Your task to perform on an android device: Open wifi settings Image 0: 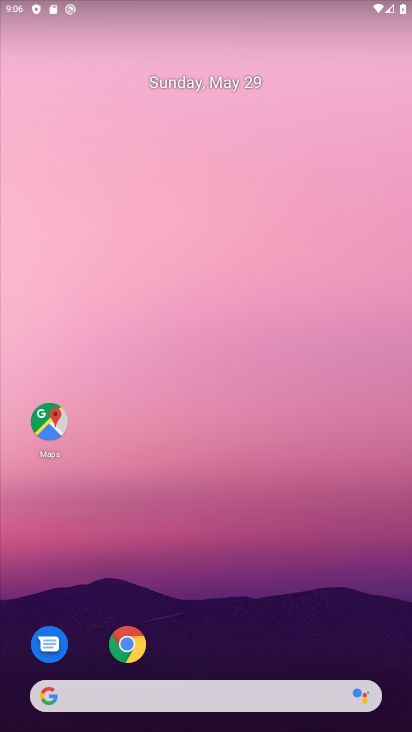
Step 0: drag from (187, 669) to (282, 156)
Your task to perform on an android device: Open wifi settings Image 1: 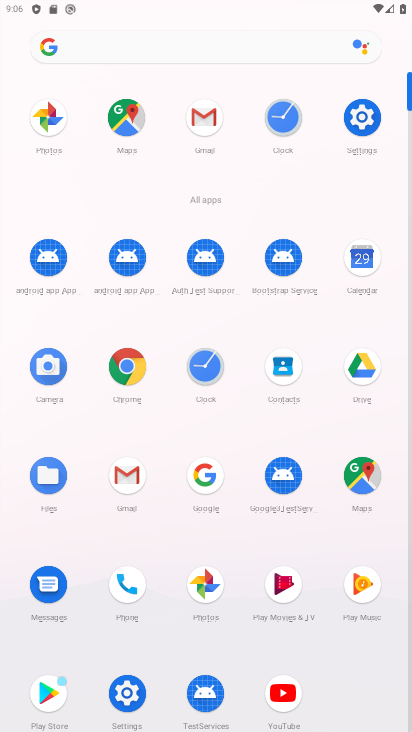
Step 1: drag from (166, 546) to (198, 419)
Your task to perform on an android device: Open wifi settings Image 2: 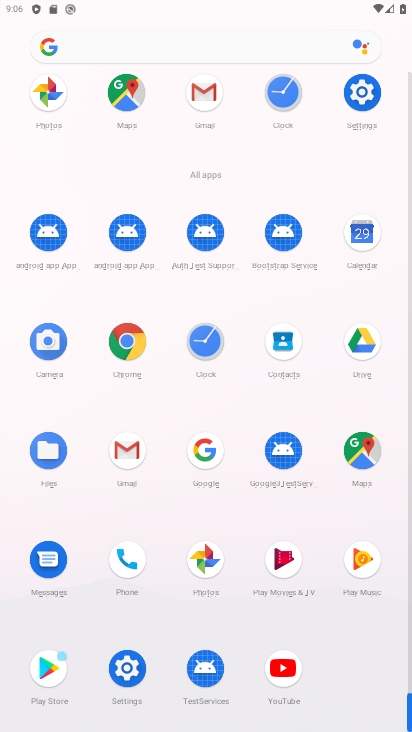
Step 2: click (141, 663)
Your task to perform on an android device: Open wifi settings Image 3: 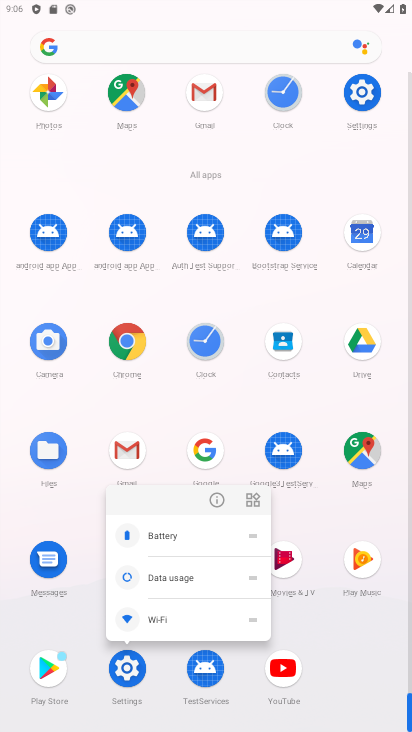
Step 3: click (127, 667)
Your task to perform on an android device: Open wifi settings Image 4: 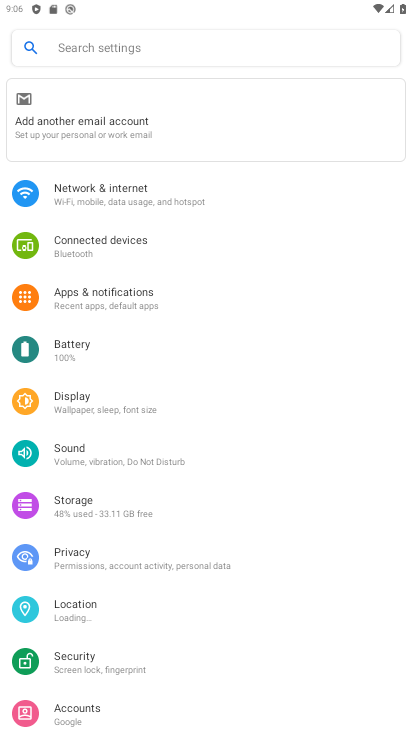
Step 4: click (176, 199)
Your task to perform on an android device: Open wifi settings Image 5: 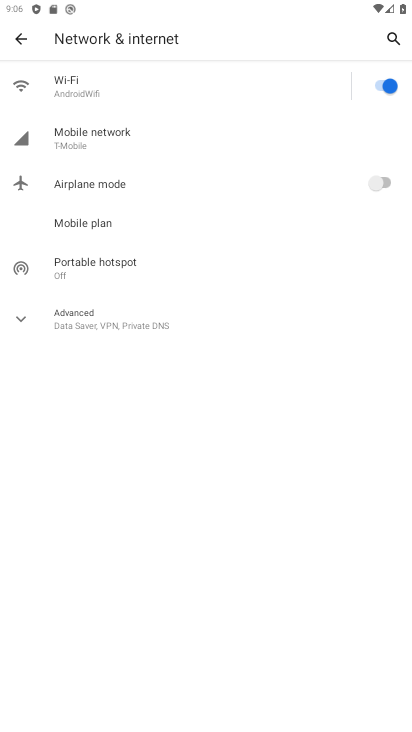
Step 5: click (122, 96)
Your task to perform on an android device: Open wifi settings Image 6: 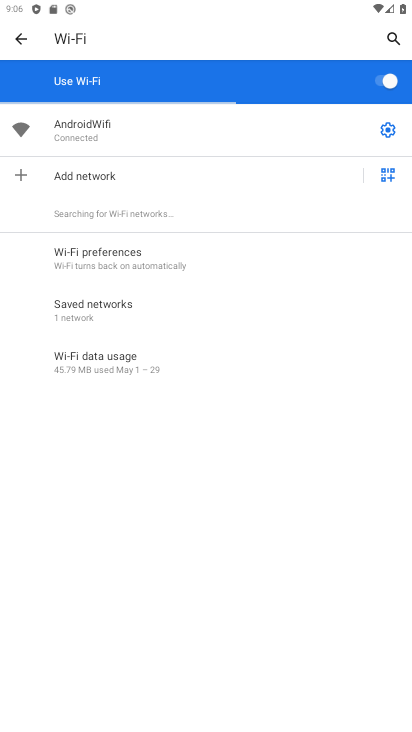
Step 6: task complete